Your task to perform on an android device: change the upload size in google photos Image 0: 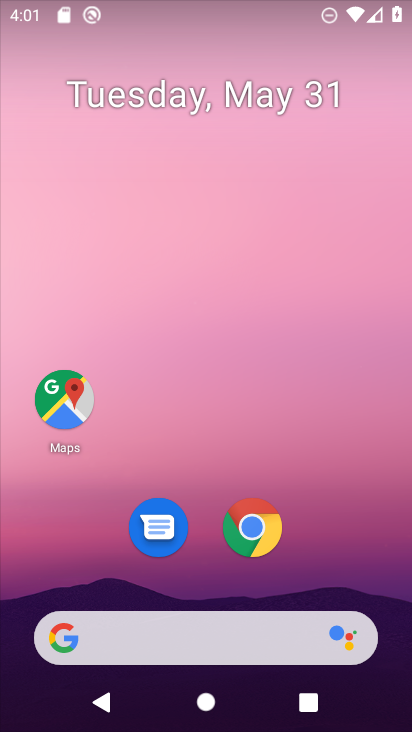
Step 0: drag from (204, 603) to (166, 100)
Your task to perform on an android device: change the upload size in google photos Image 1: 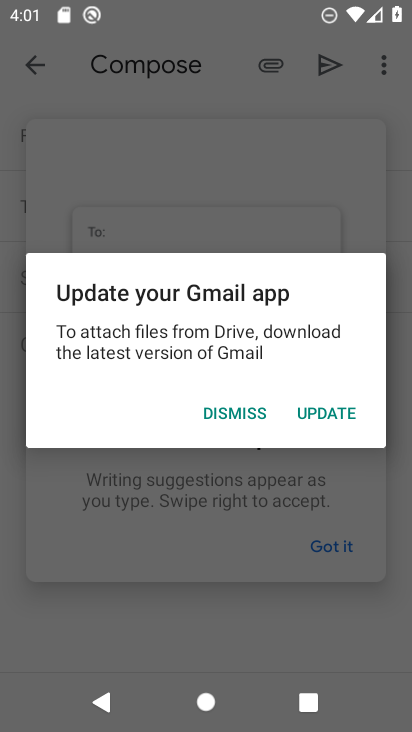
Step 1: press home button
Your task to perform on an android device: change the upload size in google photos Image 2: 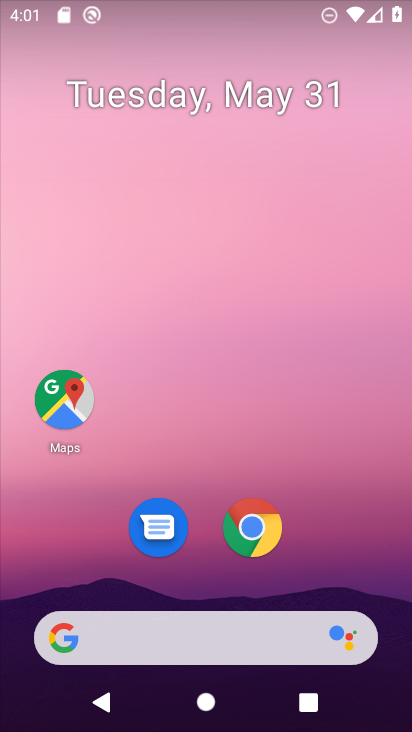
Step 2: drag from (215, 584) to (390, 148)
Your task to perform on an android device: change the upload size in google photos Image 3: 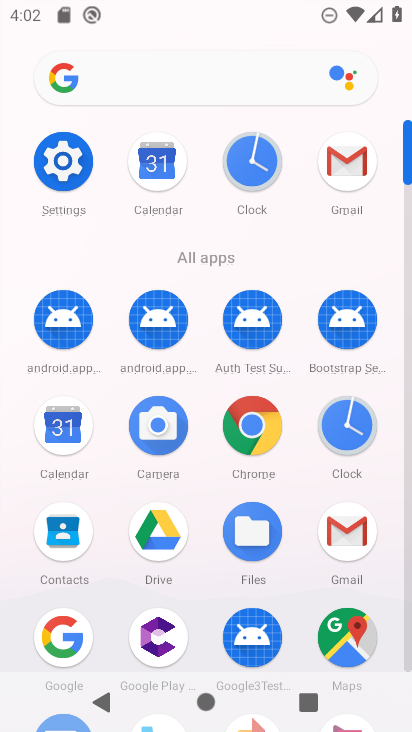
Step 3: drag from (187, 552) to (200, 61)
Your task to perform on an android device: change the upload size in google photos Image 4: 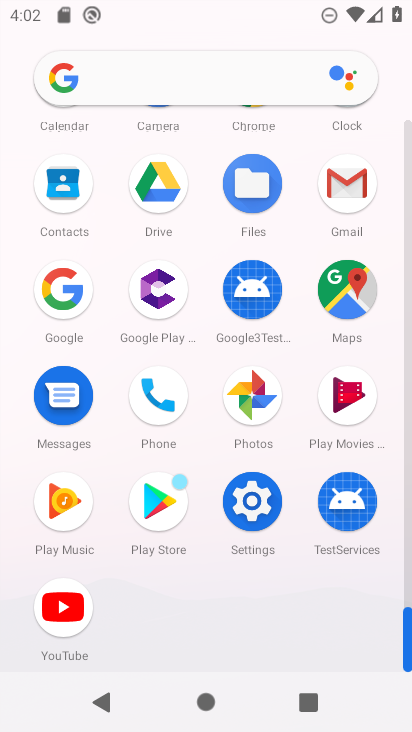
Step 4: click (254, 419)
Your task to perform on an android device: change the upload size in google photos Image 5: 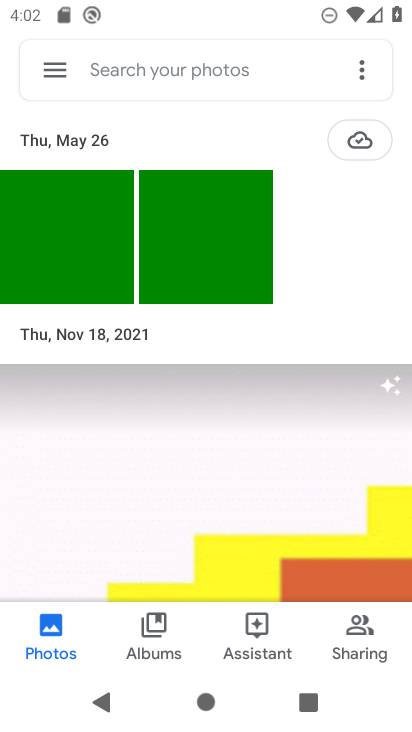
Step 5: click (47, 68)
Your task to perform on an android device: change the upload size in google photos Image 6: 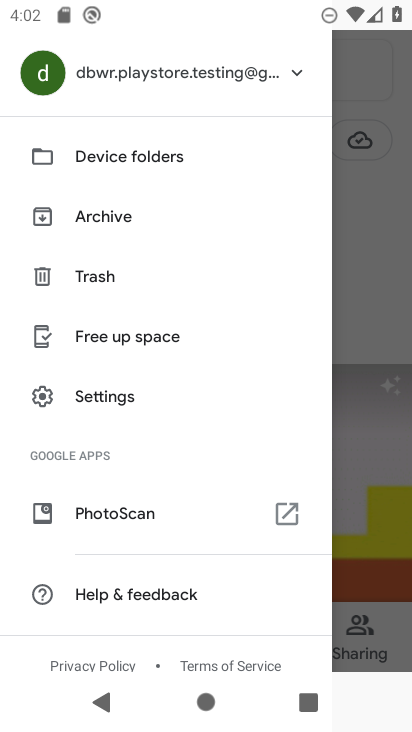
Step 6: click (130, 381)
Your task to perform on an android device: change the upload size in google photos Image 7: 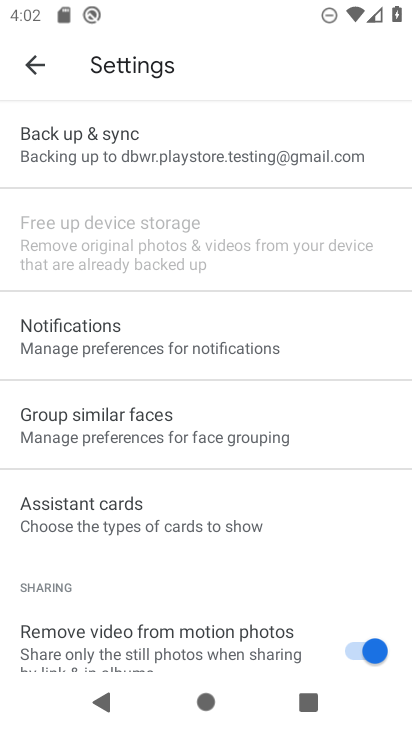
Step 7: click (131, 152)
Your task to perform on an android device: change the upload size in google photos Image 8: 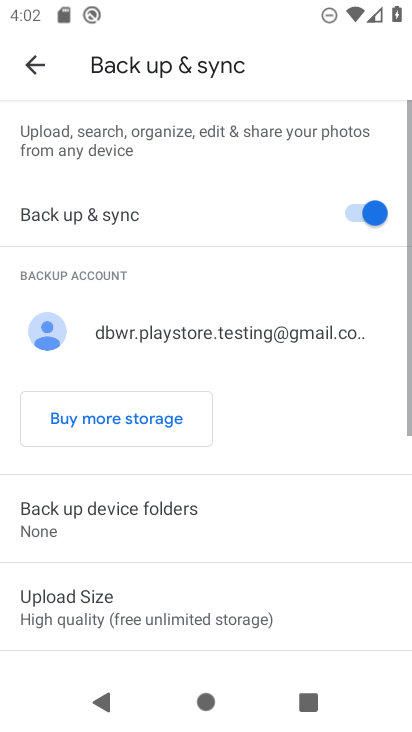
Step 8: click (124, 585)
Your task to perform on an android device: change the upload size in google photos Image 9: 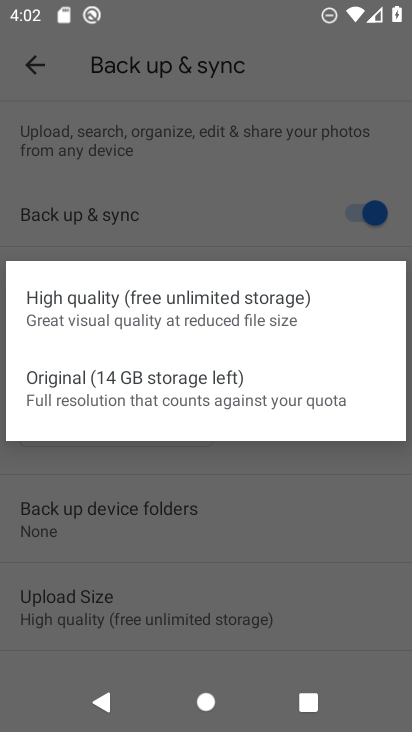
Step 9: click (99, 399)
Your task to perform on an android device: change the upload size in google photos Image 10: 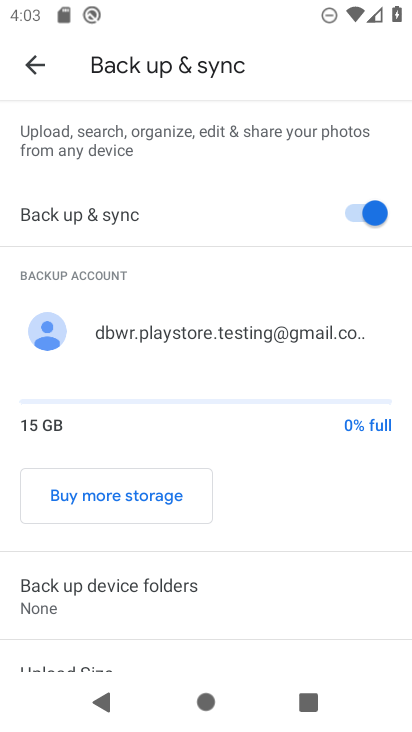
Step 10: task complete